Your task to perform on an android device: Search for the best coffee tables on Crate & Barrel Image 0: 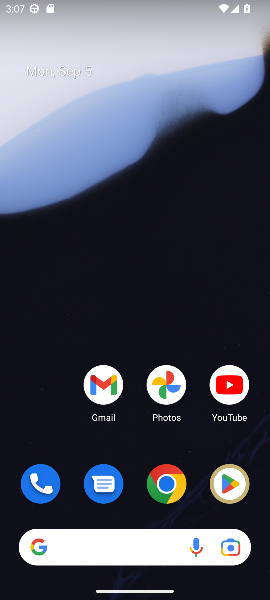
Step 0: click (165, 481)
Your task to perform on an android device: Search for the best coffee tables on Crate & Barrel Image 1: 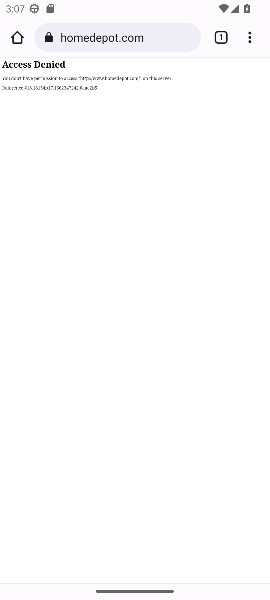
Step 1: click (156, 35)
Your task to perform on an android device: Search for the best coffee tables on Crate & Barrel Image 2: 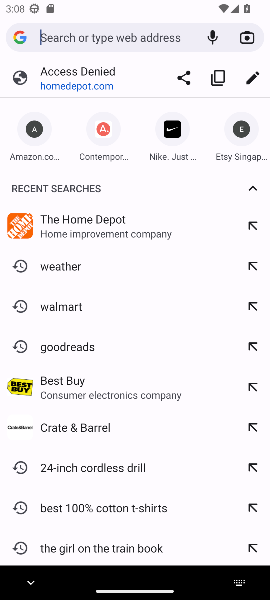
Step 2: type "Crate & Barrel"
Your task to perform on an android device: Search for the best coffee tables on Crate & Barrel Image 3: 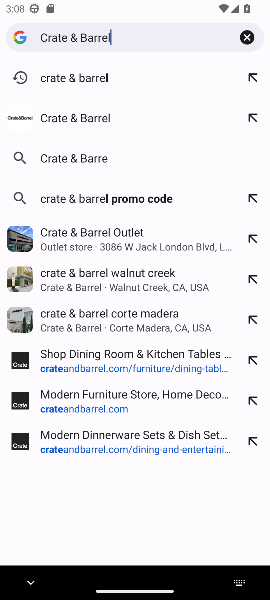
Step 3: press enter
Your task to perform on an android device: Search for the best coffee tables on Crate & Barrel Image 4: 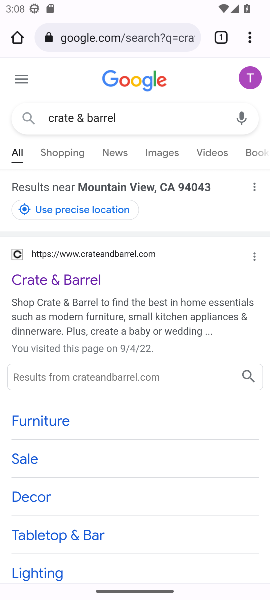
Step 4: click (59, 281)
Your task to perform on an android device: Search for the best coffee tables on Crate & Barrel Image 5: 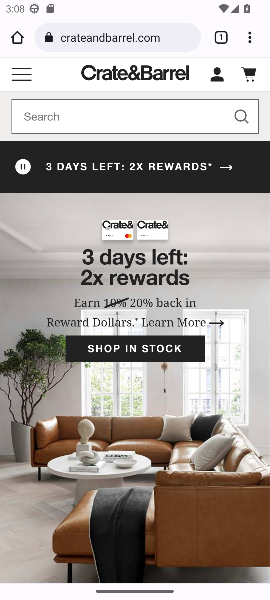
Step 5: click (125, 119)
Your task to perform on an android device: Search for the best coffee tables on Crate & Barrel Image 6: 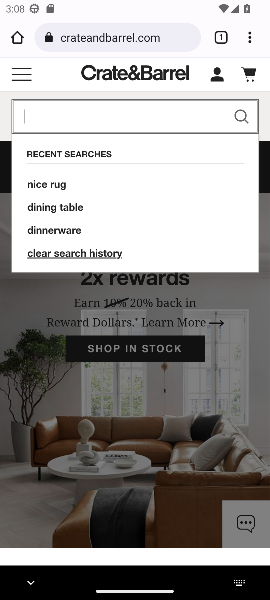
Step 6: type "coffee tables"
Your task to perform on an android device: Search for the best coffee tables on Crate & Barrel Image 7: 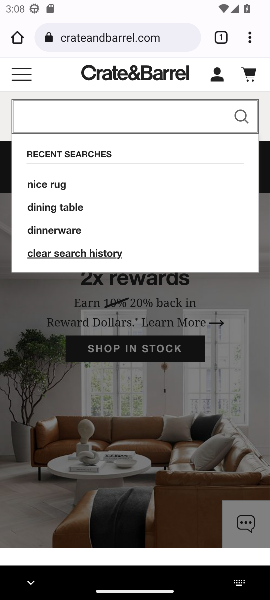
Step 7: press enter
Your task to perform on an android device: Search for the best coffee tables on Crate & Barrel Image 8: 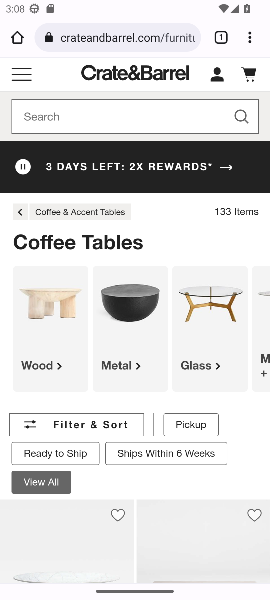
Step 8: task complete